Your task to perform on an android device: open app "eBay: The shopping marketplace" (install if not already installed) and enter user name: "articulated@icloud.com" and password: "excluding" Image 0: 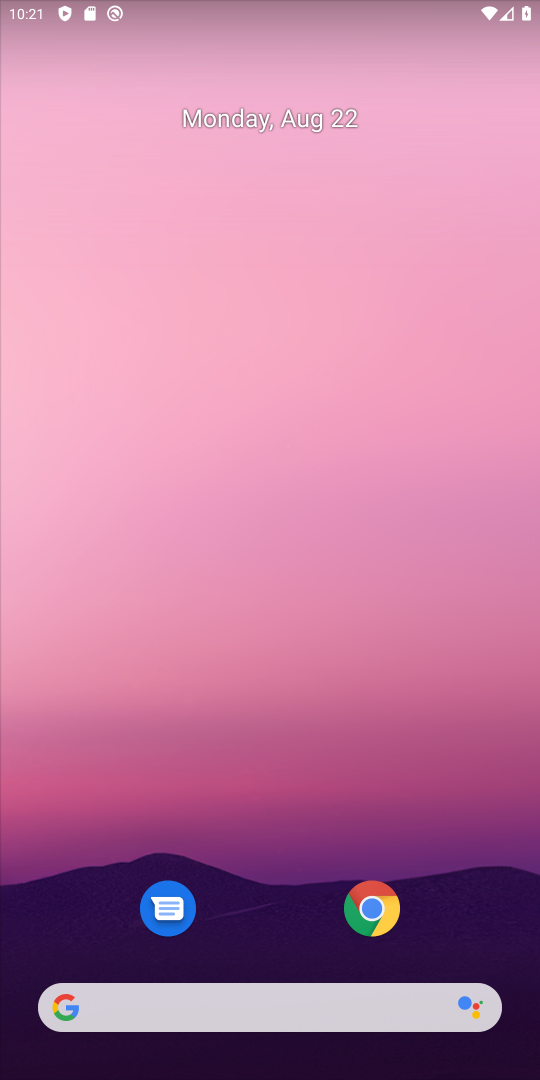
Step 0: drag from (302, 976) to (388, 248)
Your task to perform on an android device: open app "eBay: The shopping marketplace" (install if not already installed) and enter user name: "articulated@icloud.com" and password: "excluding" Image 1: 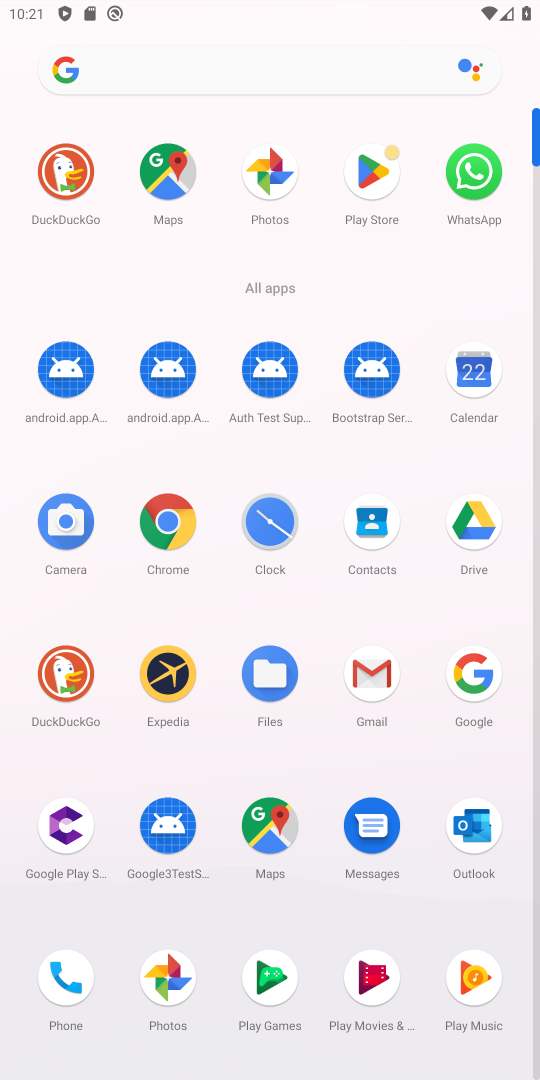
Step 1: click (380, 200)
Your task to perform on an android device: open app "eBay: The shopping marketplace" (install if not already installed) and enter user name: "articulated@icloud.com" and password: "excluding" Image 2: 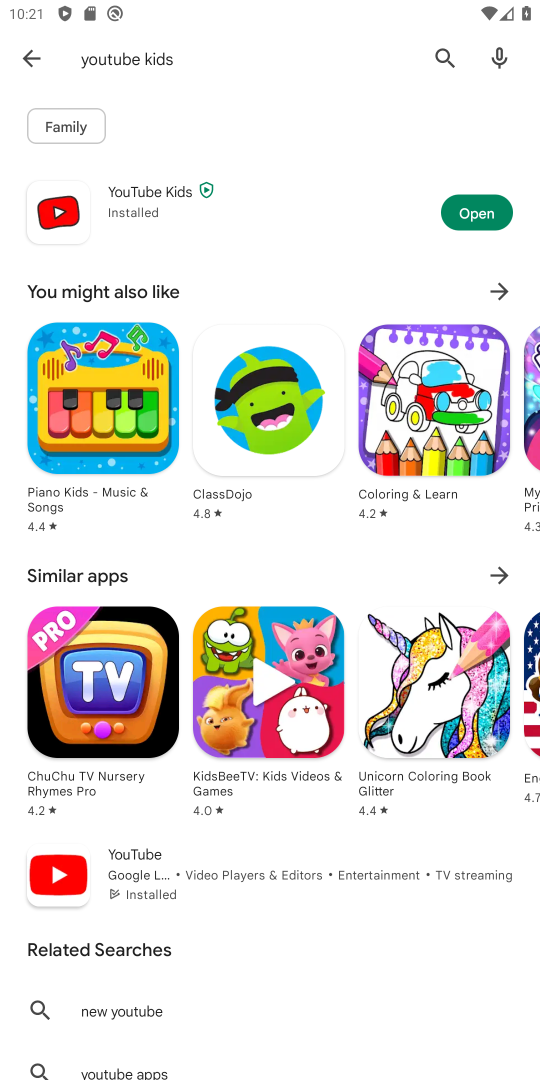
Step 2: click (453, 54)
Your task to perform on an android device: open app "eBay: The shopping marketplace" (install if not already installed) and enter user name: "articulated@icloud.com" and password: "excluding" Image 3: 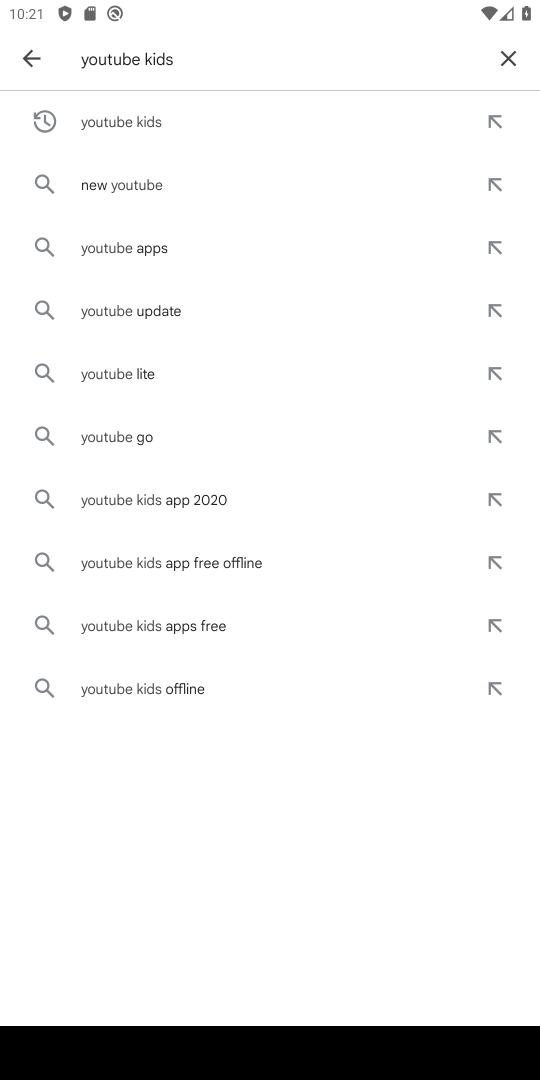
Step 3: click (496, 55)
Your task to perform on an android device: open app "eBay: The shopping marketplace" (install if not already installed) and enter user name: "articulated@icloud.com" and password: "excluding" Image 4: 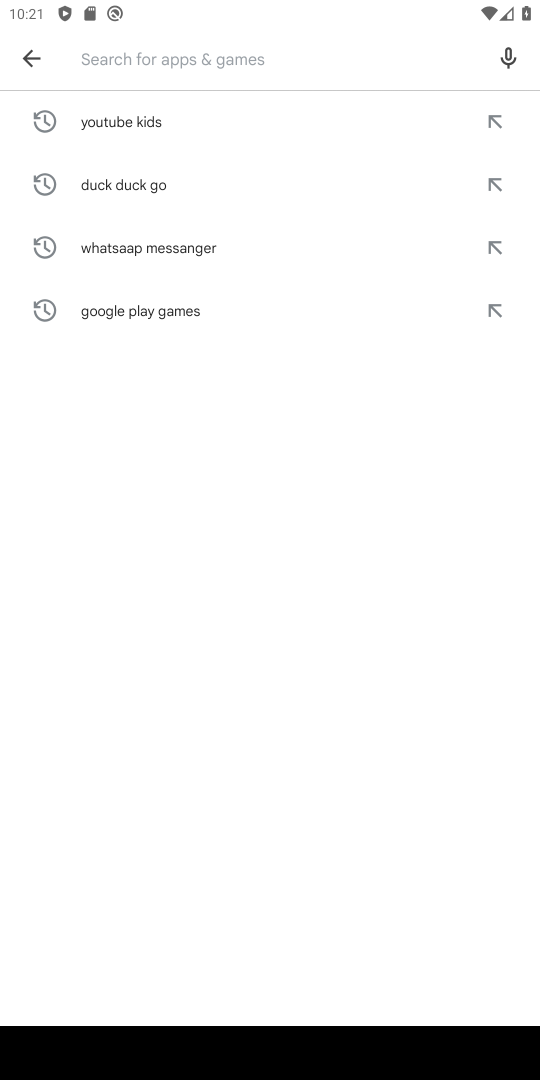
Step 4: type "ebay"
Your task to perform on an android device: open app "eBay: The shopping marketplace" (install if not already installed) and enter user name: "articulated@icloud.com" and password: "excluding" Image 5: 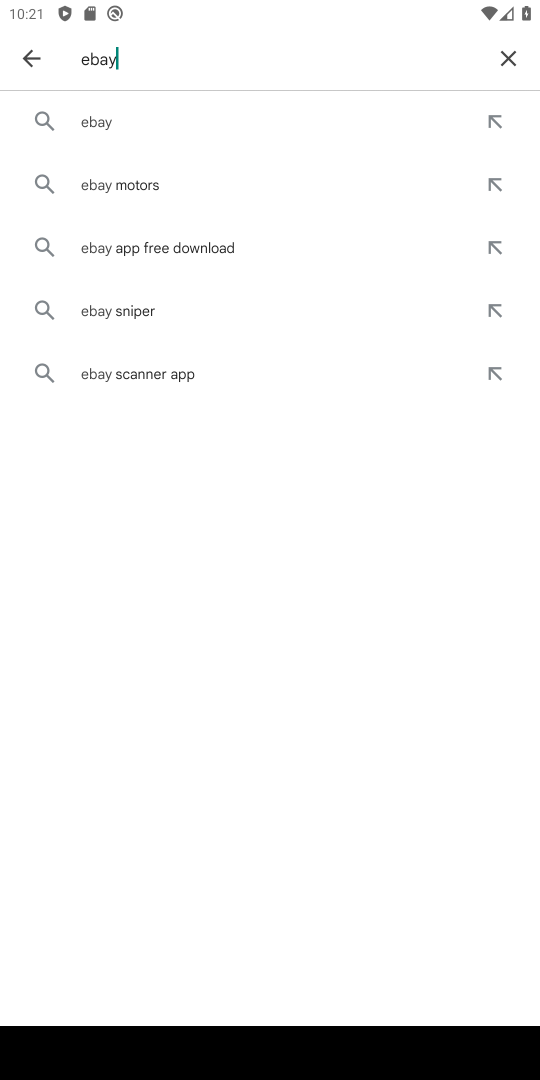
Step 5: click (232, 115)
Your task to perform on an android device: open app "eBay: The shopping marketplace" (install if not already installed) and enter user name: "articulated@icloud.com" and password: "excluding" Image 6: 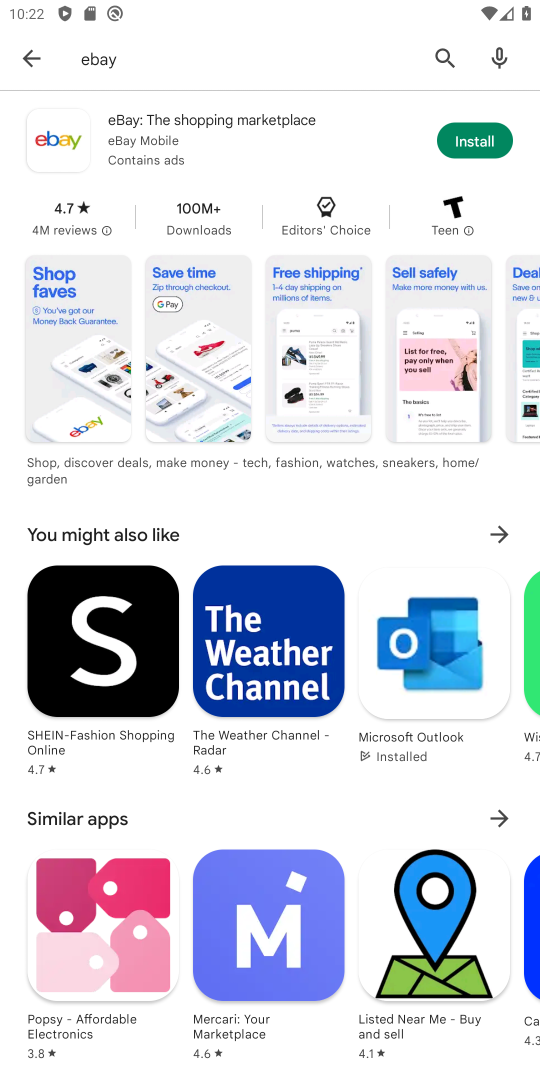
Step 6: click (489, 134)
Your task to perform on an android device: open app "eBay: The shopping marketplace" (install if not already installed) and enter user name: "articulated@icloud.com" and password: "excluding" Image 7: 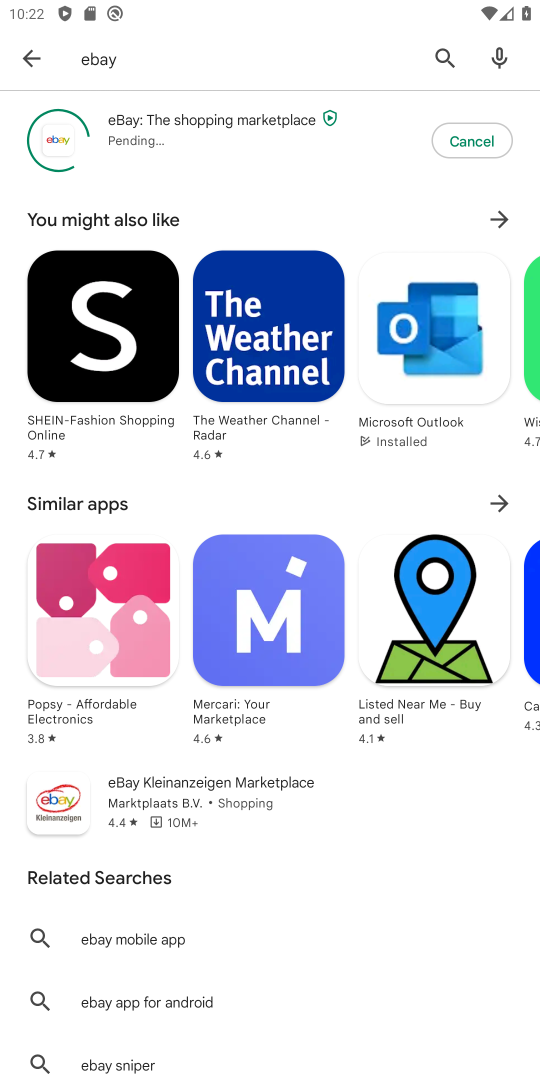
Step 7: click (435, 62)
Your task to perform on an android device: open app "eBay: The shopping marketplace" (install if not already installed) and enter user name: "articulated@icloud.com" and password: "excluding" Image 8: 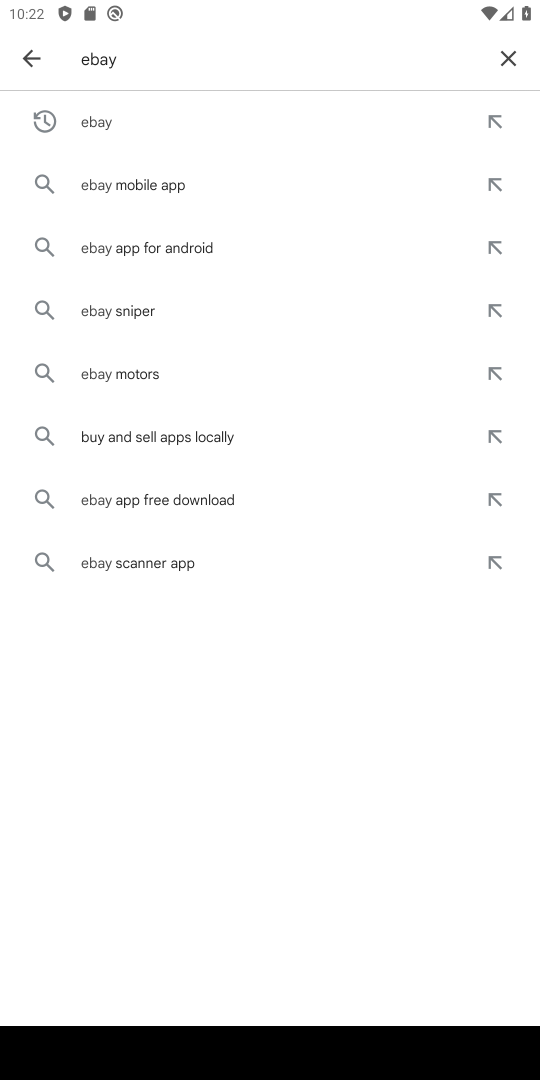
Step 8: click (503, 59)
Your task to perform on an android device: open app "eBay: The shopping marketplace" (install if not already installed) and enter user name: "articulated@icloud.com" and password: "excluding" Image 9: 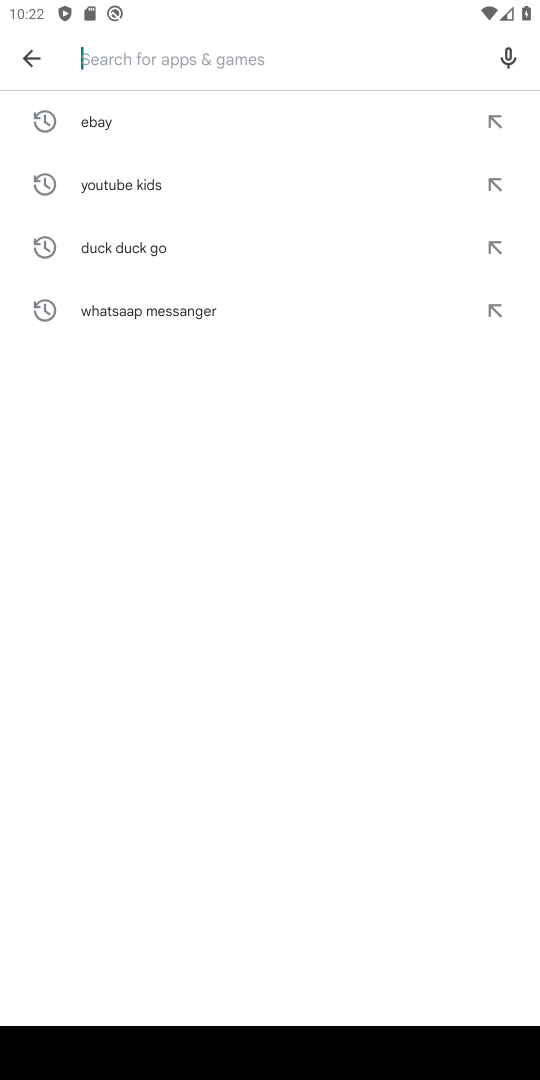
Step 9: click (83, 119)
Your task to perform on an android device: open app "eBay: The shopping marketplace" (install if not already installed) and enter user name: "articulated@icloud.com" and password: "excluding" Image 10: 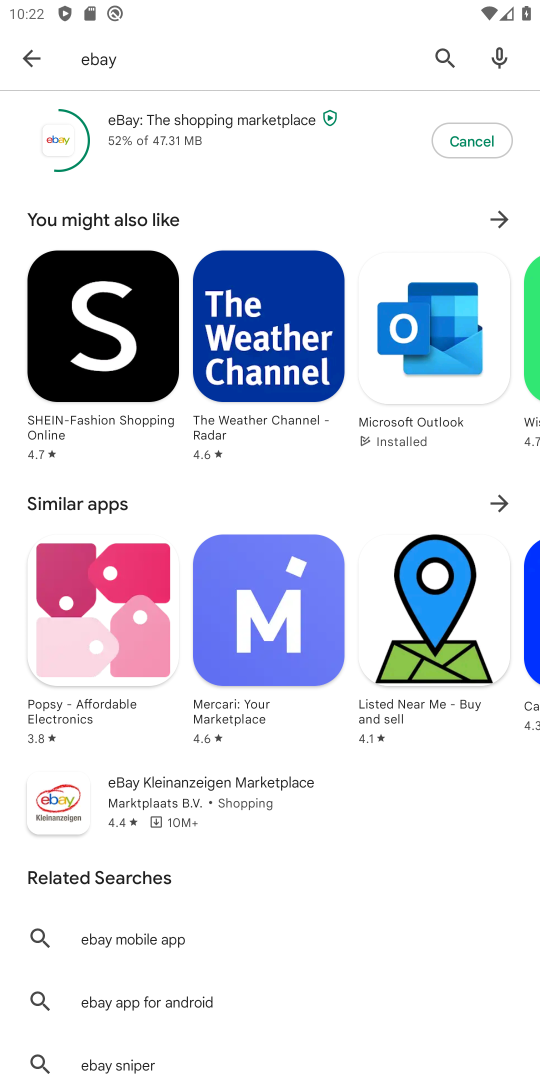
Step 10: click (187, 122)
Your task to perform on an android device: open app "eBay: The shopping marketplace" (install if not already installed) and enter user name: "articulated@icloud.com" and password: "excluding" Image 11: 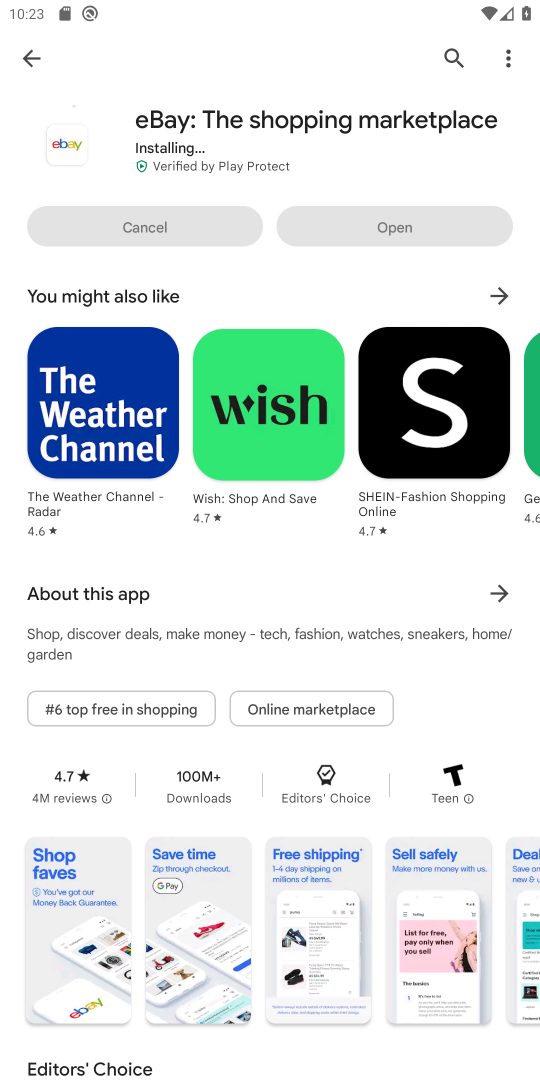
Step 11: task complete